Your task to perform on an android device: change timer sound Image 0: 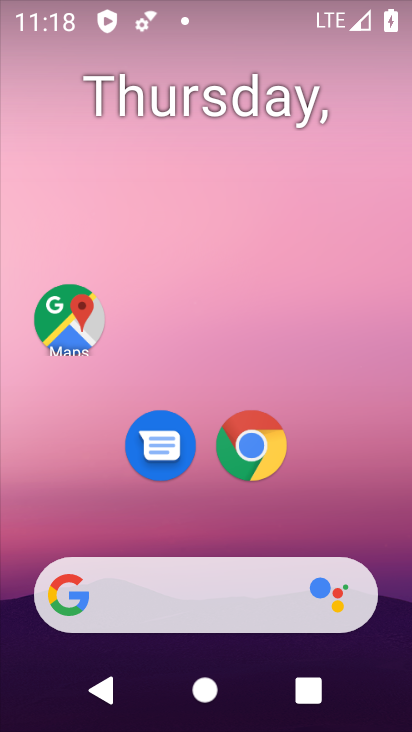
Step 0: drag from (143, 562) to (236, 76)
Your task to perform on an android device: change timer sound Image 1: 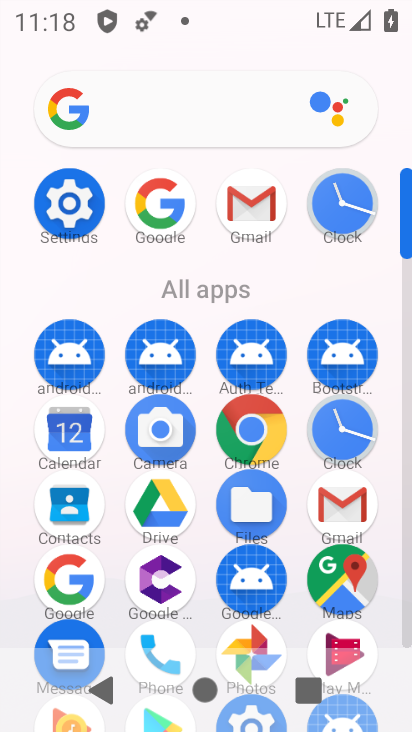
Step 1: click (352, 434)
Your task to perform on an android device: change timer sound Image 2: 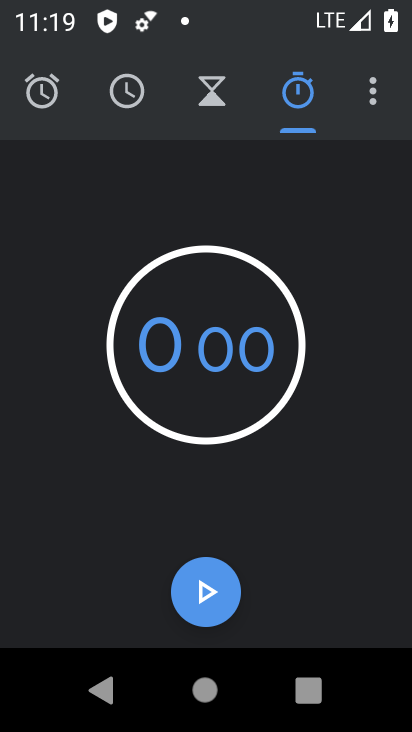
Step 2: click (371, 99)
Your task to perform on an android device: change timer sound Image 3: 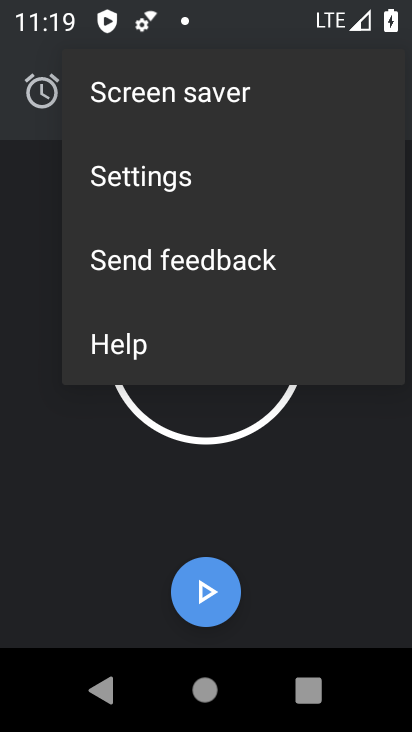
Step 3: click (209, 178)
Your task to perform on an android device: change timer sound Image 4: 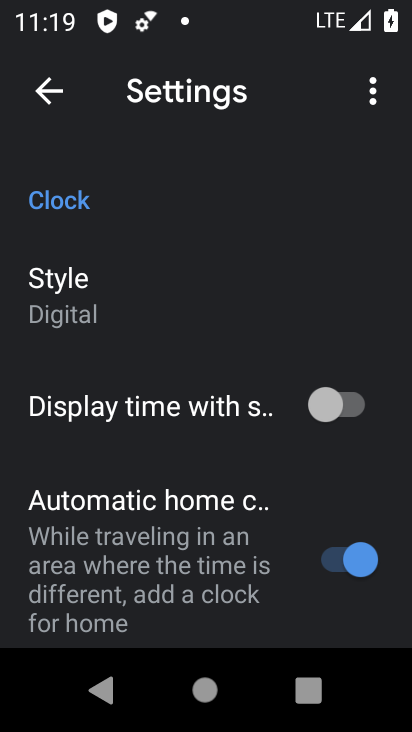
Step 4: drag from (156, 537) to (247, 208)
Your task to perform on an android device: change timer sound Image 5: 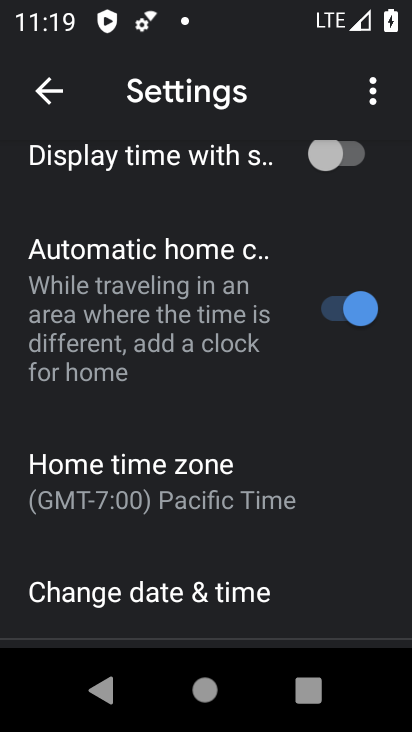
Step 5: drag from (188, 256) to (237, 101)
Your task to perform on an android device: change timer sound Image 6: 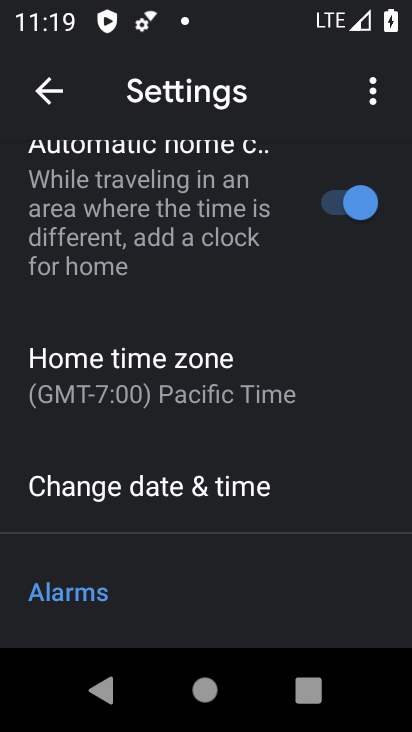
Step 6: drag from (153, 584) to (251, 126)
Your task to perform on an android device: change timer sound Image 7: 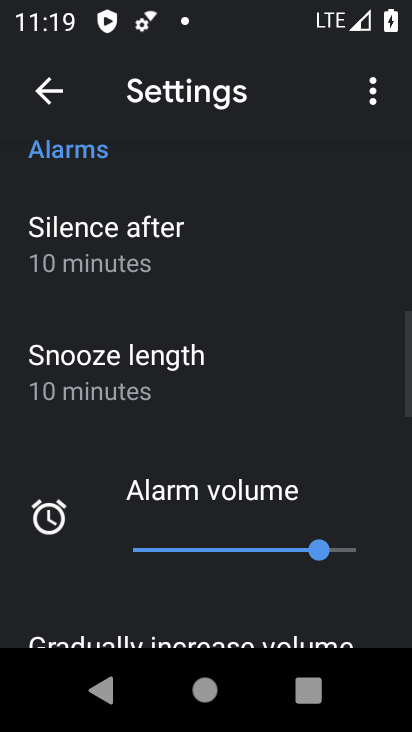
Step 7: drag from (162, 509) to (246, 120)
Your task to perform on an android device: change timer sound Image 8: 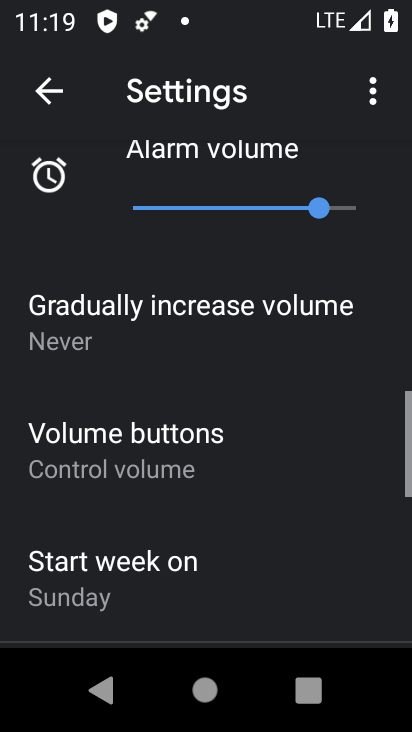
Step 8: drag from (167, 482) to (301, 37)
Your task to perform on an android device: change timer sound Image 9: 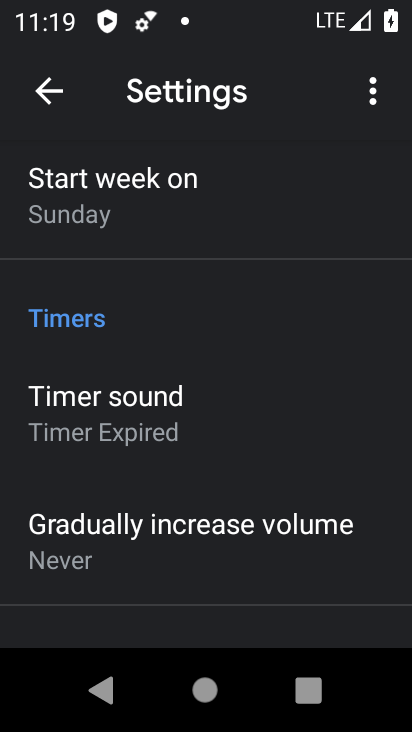
Step 9: click (204, 434)
Your task to perform on an android device: change timer sound Image 10: 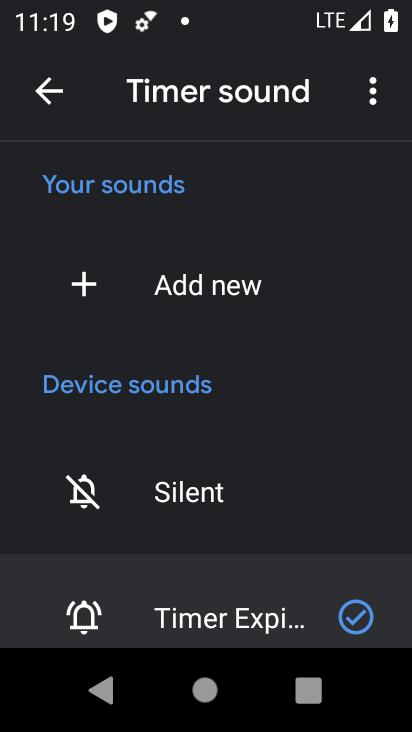
Step 10: drag from (143, 611) to (303, 201)
Your task to perform on an android device: change timer sound Image 11: 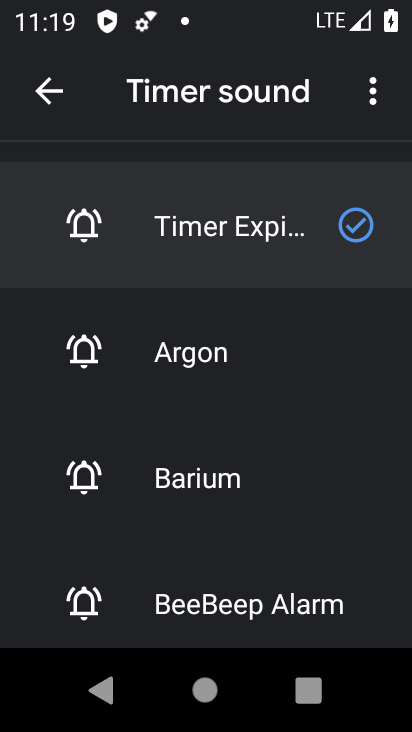
Step 11: click (278, 592)
Your task to perform on an android device: change timer sound Image 12: 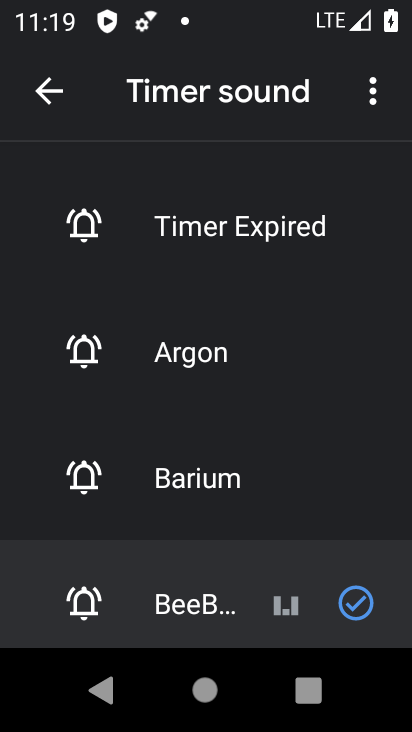
Step 12: task complete